Your task to perform on an android device: Add "usb-c to usb-a" to the cart on costco.com Image 0: 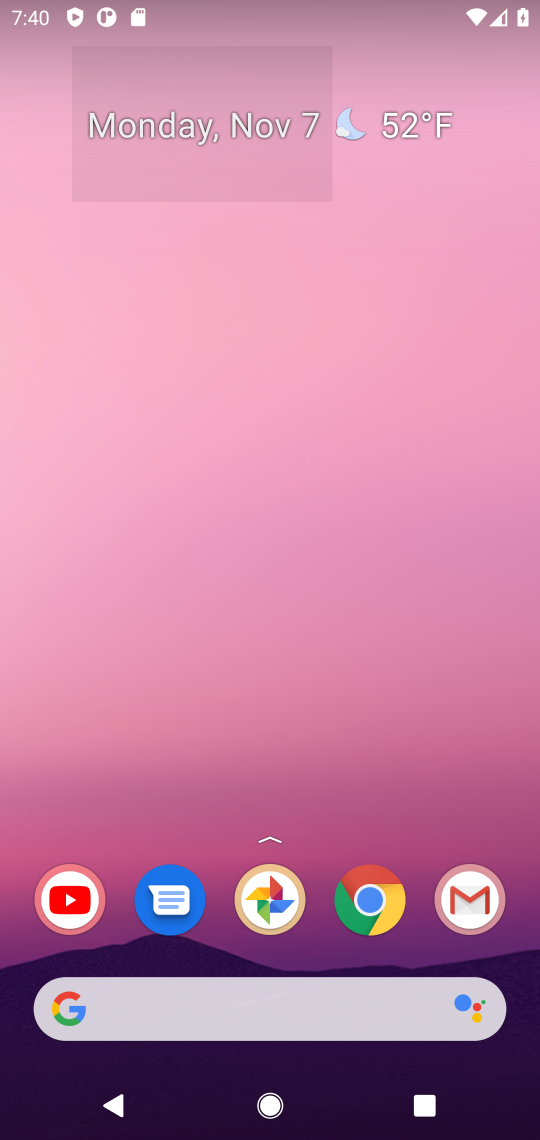
Step 0: task complete